Your task to perform on an android device: find which apps use the phone's location Image 0: 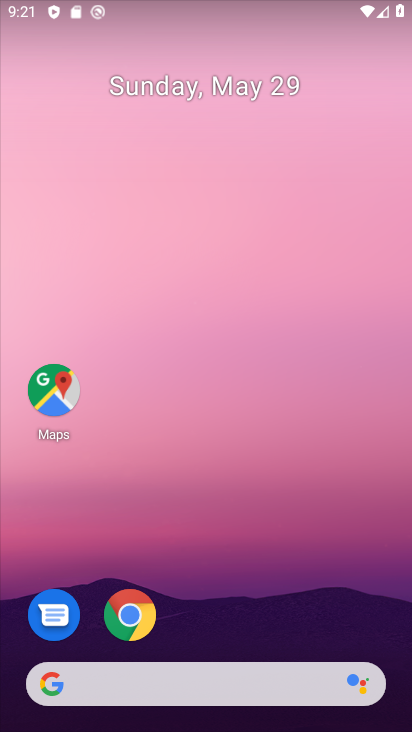
Step 0: drag from (205, 645) to (196, 18)
Your task to perform on an android device: find which apps use the phone's location Image 1: 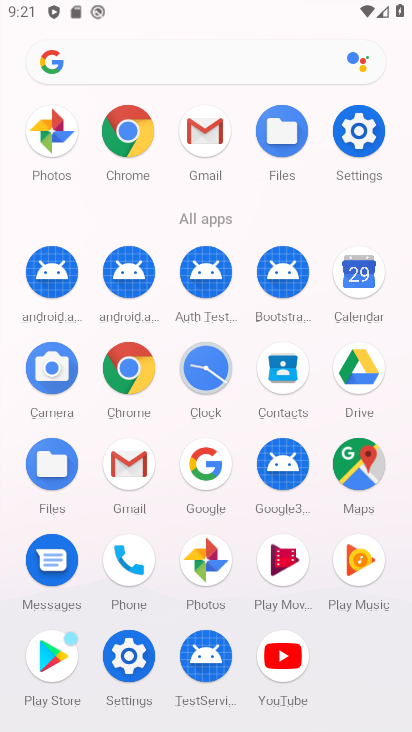
Step 1: click (137, 644)
Your task to perform on an android device: find which apps use the phone's location Image 2: 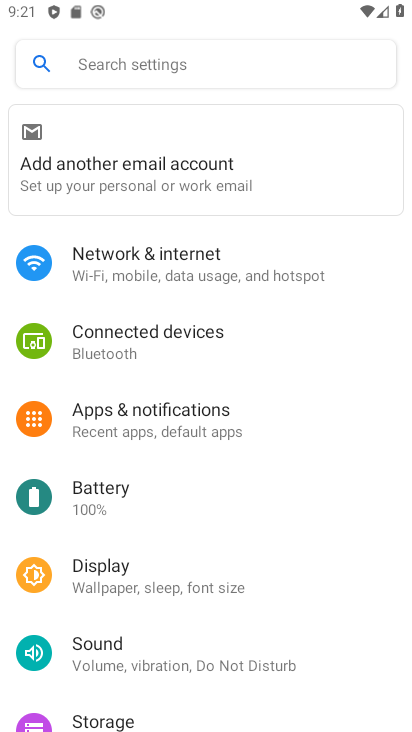
Step 2: click (101, 407)
Your task to perform on an android device: find which apps use the phone's location Image 3: 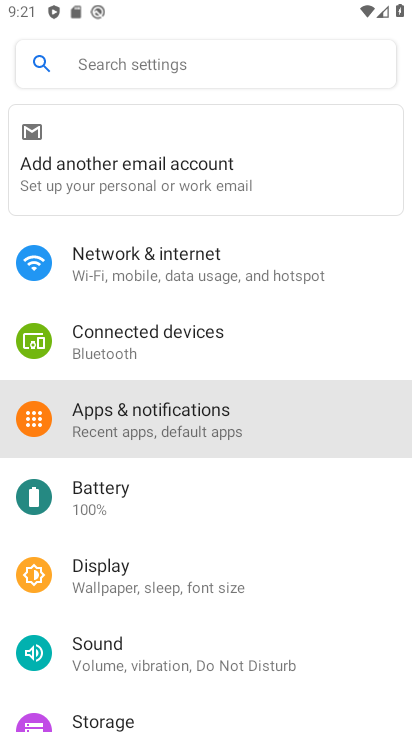
Step 3: click (101, 407)
Your task to perform on an android device: find which apps use the phone's location Image 4: 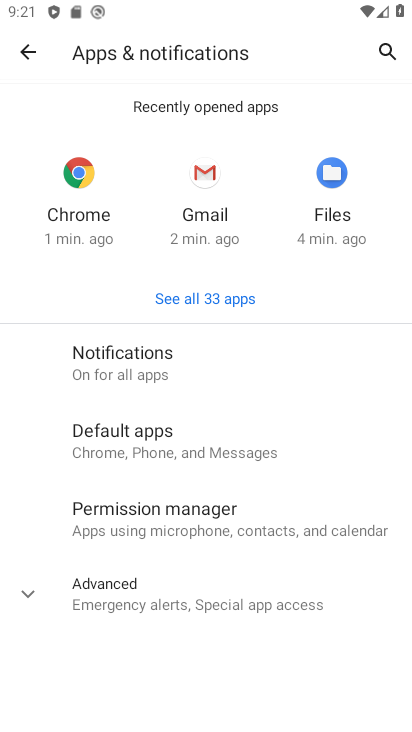
Step 4: click (29, 62)
Your task to perform on an android device: find which apps use the phone's location Image 5: 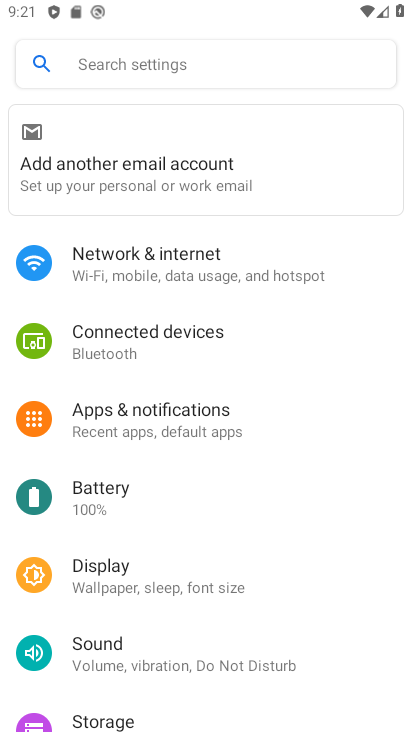
Step 5: drag from (189, 622) to (176, 128)
Your task to perform on an android device: find which apps use the phone's location Image 6: 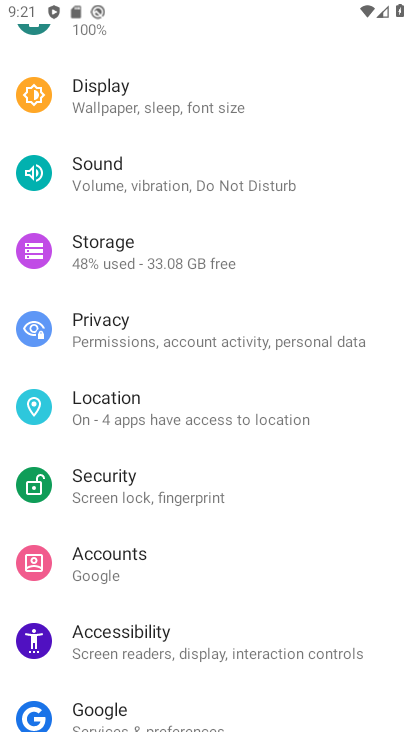
Step 6: click (107, 421)
Your task to perform on an android device: find which apps use the phone's location Image 7: 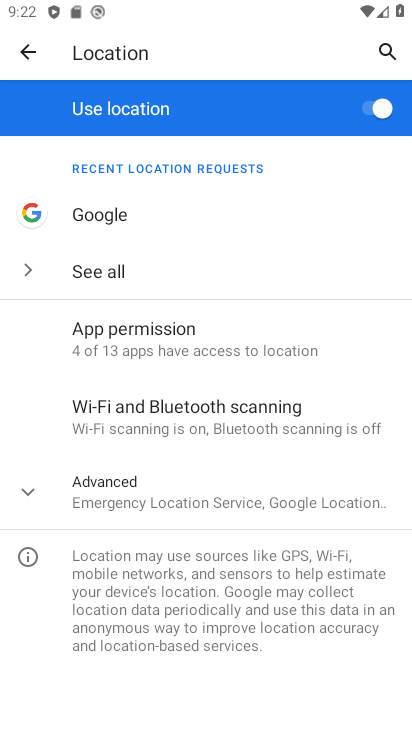
Step 7: click (155, 315)
Your task to perform on an android device: find which apps use the phone's location Image 8: 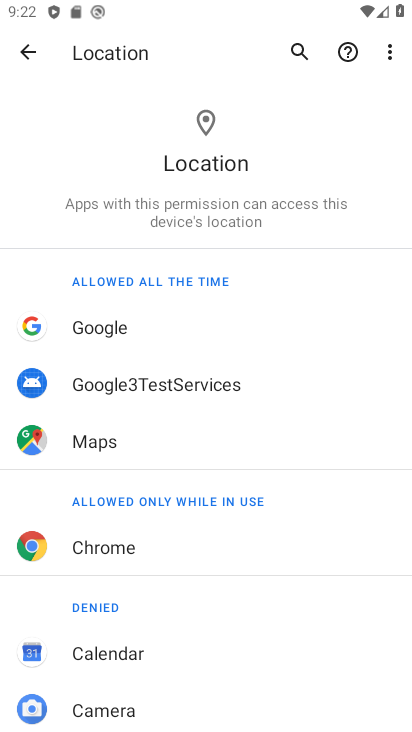
Step 8: task complete